Your task to perform on an android device: turn off priority inbox in the gmail app Image 0: 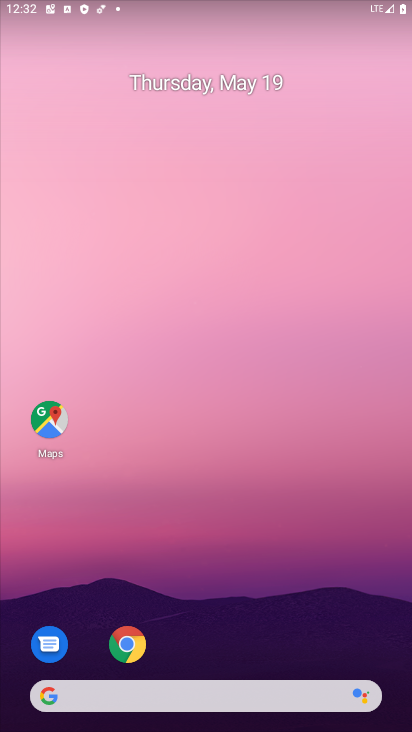
Step 0: drag from (328, 623) to (185, 111)
Your task to perform on an android device: turn off priority inbox in the gmail app Image 1: 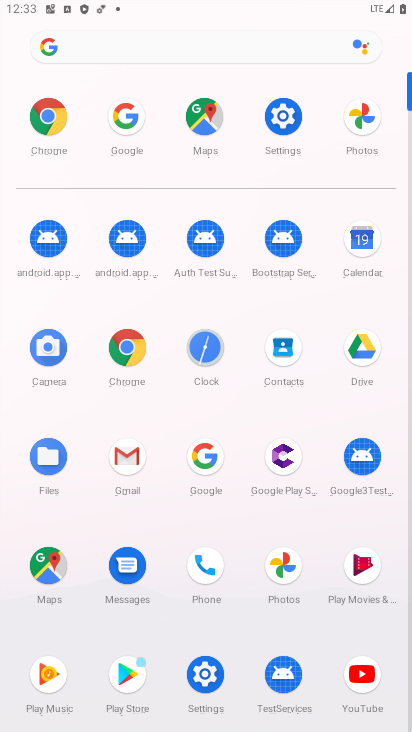
Step 1: press home button
Your task to perform on an android device: turn off priority inbox in the gmail app Image 2: 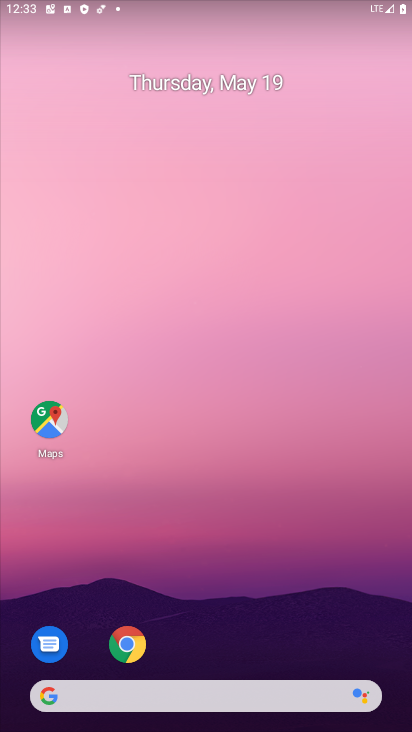
Step 2: drag from (371, 631) to (176, 44)
Your task to perform on an android device: turn off priority inbox in the gmail app Image 3: 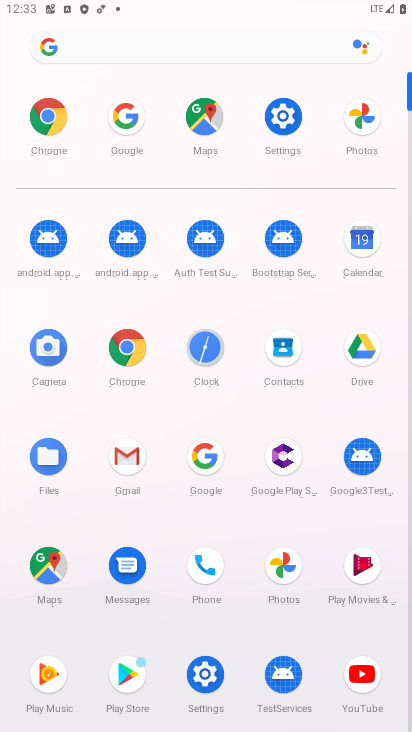
Step 3: click (129, 463)
Your task to perform on an android device: turn off priority inbox in the gmail app Image 4: 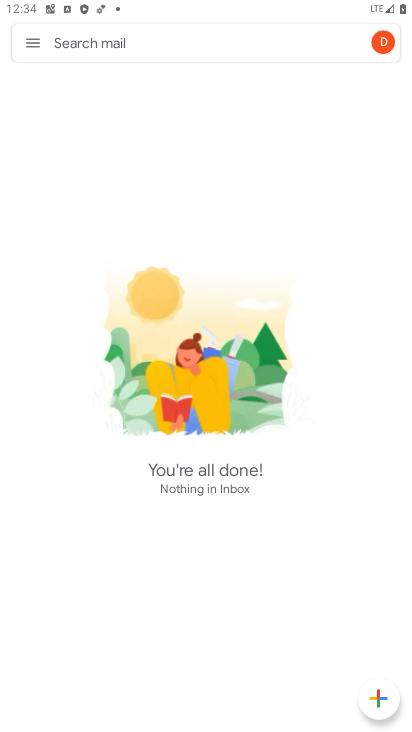
Step 4: click (38, 35)
Your task to perform on an android device: turn off priority inbox in the gmail app Image 5: 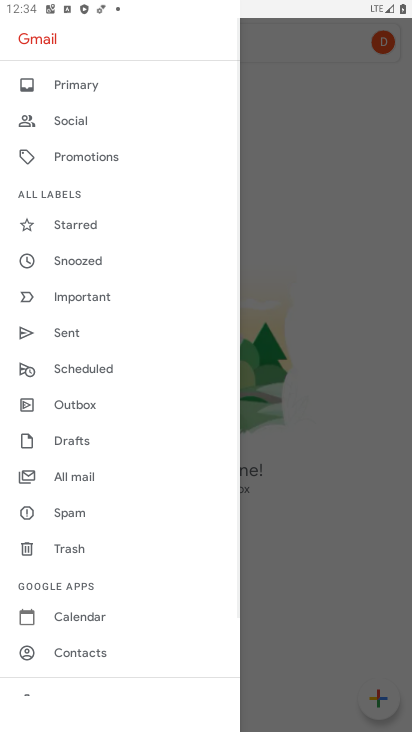
Step 5: drag from (141, 612) to (155, 115)
Your task to perform on an android device: turn off priority inbox in the gmail app Image 6: 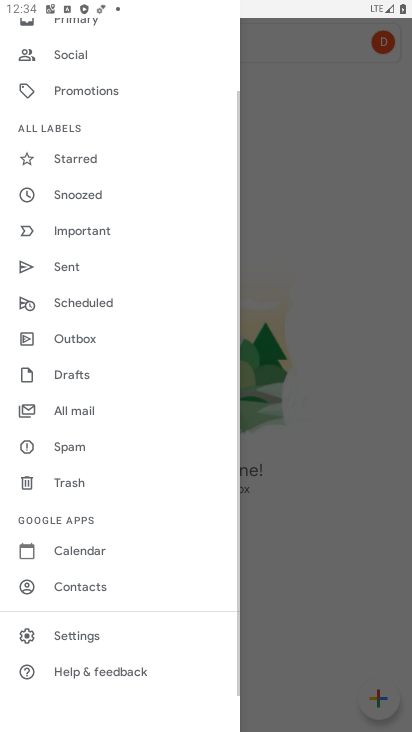
Step 6: click (100, 639)
Your task to perform on an android device: turn off priority inbox in the gmail app Image 7: 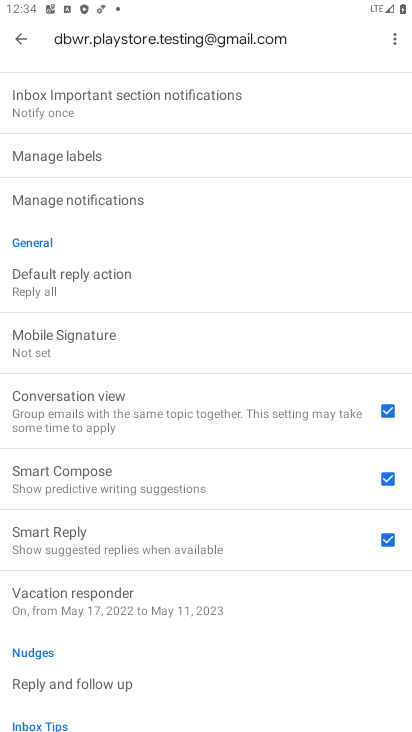
Step 7: drag from (163, 182) to (173, 586)
Your task to perform on an android device: turn off priority inbox in the gmail app Image 8: 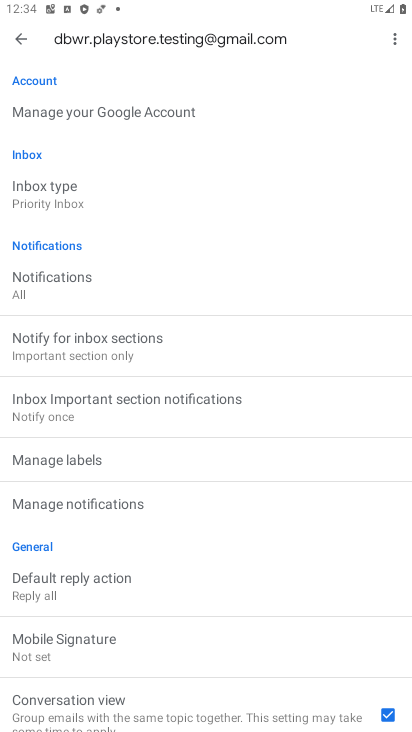
Step 8: click (82, 205)
Your task to perform on an android device: turn off priority inbox in the gmail app Image 9: 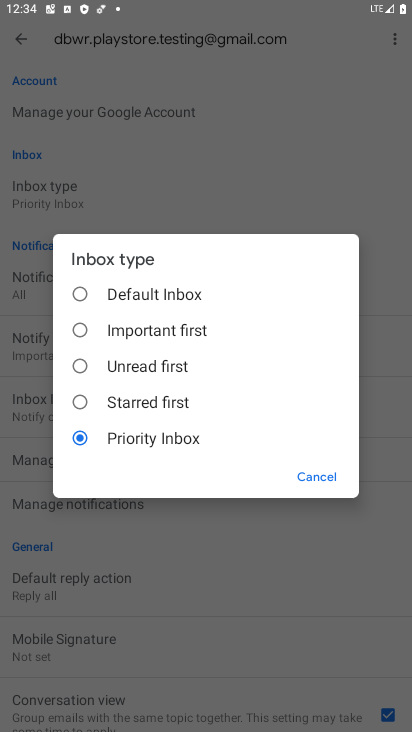
Step 9: click (133, 300)
Your task to perform on an android device: turn off priority inbox in the gmail app Image 10: 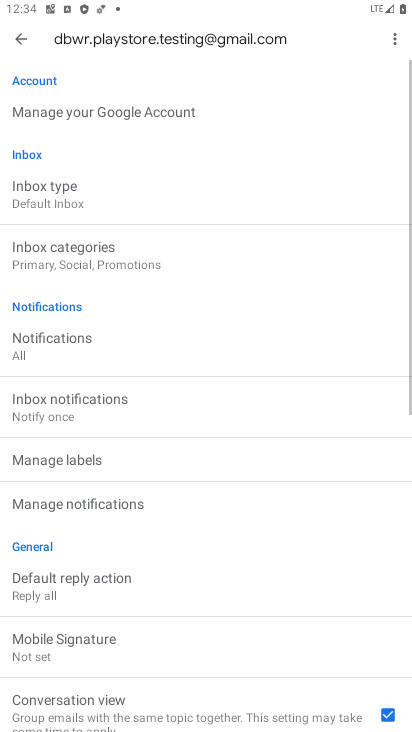
Step 10: task complete